Your task to perform on an android device: open a new tab in the chrome app Image 0: 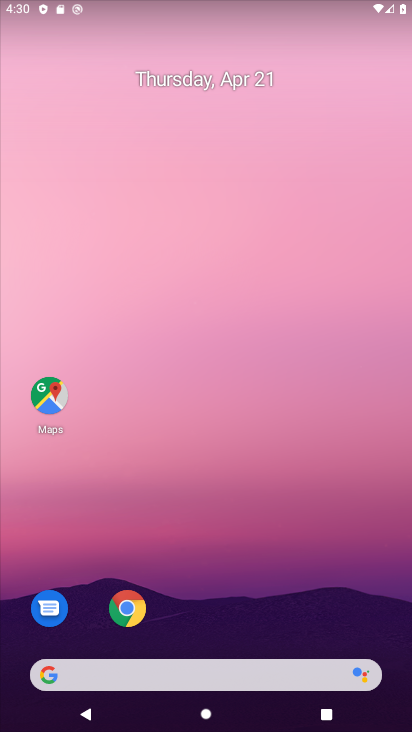
Step 0: drag from (284, 524) to (181, 73)
Your task to perform on an android device: open a new tab in the chrome app Image 1: 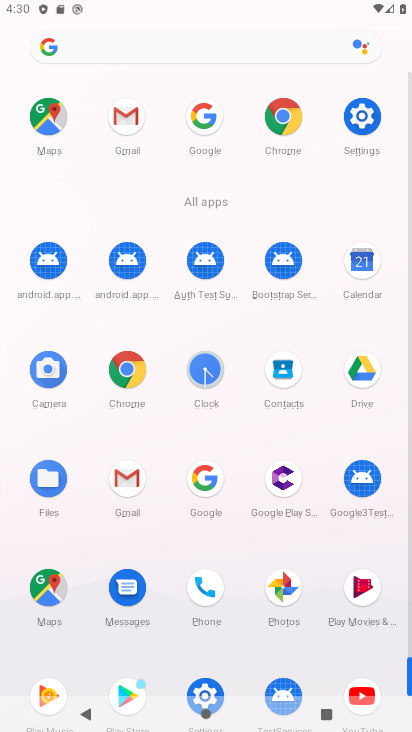
Step 1: click (282, 148)
Your task to perform on an android device: open a new tab in the chrome app Image 2: 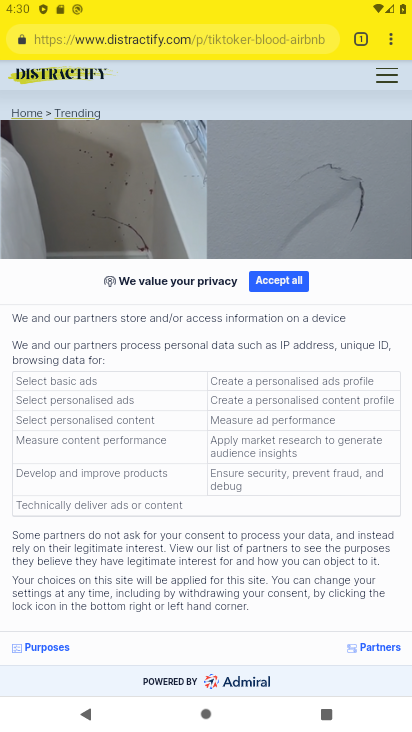
Step 2: click (356, 36)
Your task to perform on an android device: open a new tab in the chrome app Image 3: 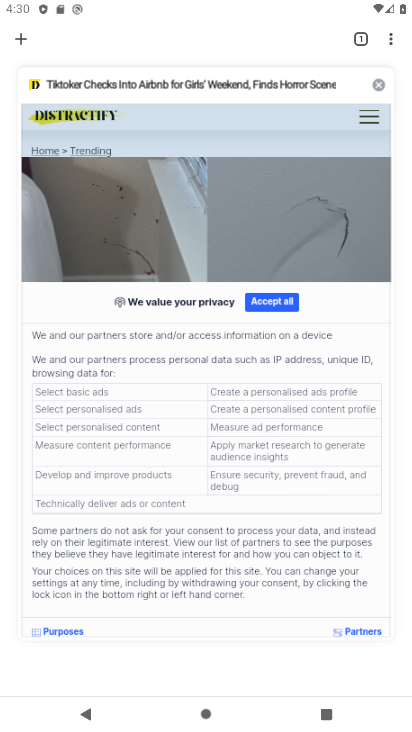
Step 3: click (20, 39)
Your task to perform on an android device: open a new tab in the chrome app Image 4: 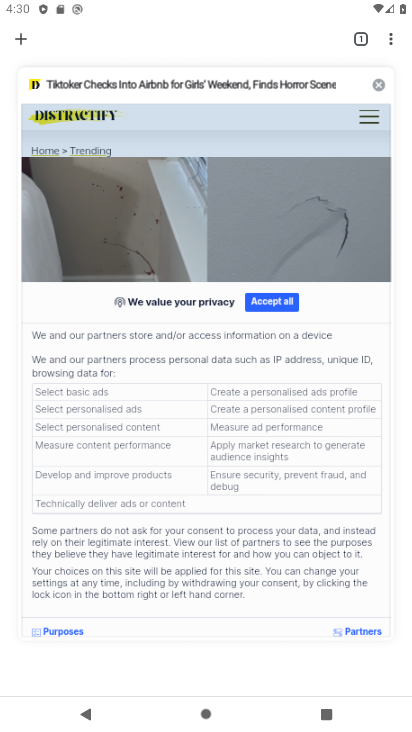
Step 4: click (356, 37)
Your task to perform on an android device: open a new tab in the chrome app Image 5: 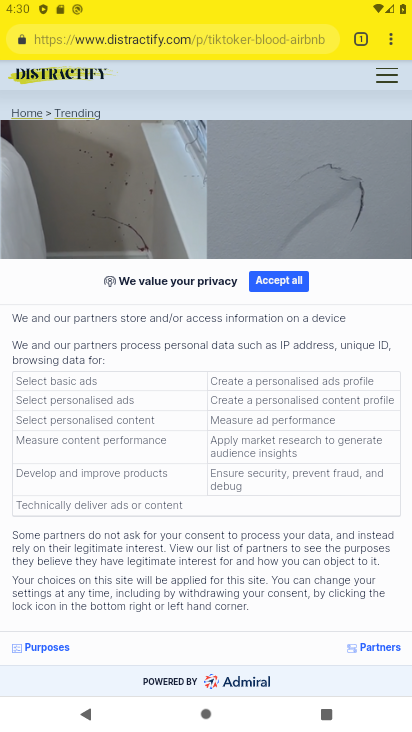
Step 5: click (361, 38)
Your task to perform on an android device: open a new tab in the chrome app Image 6: 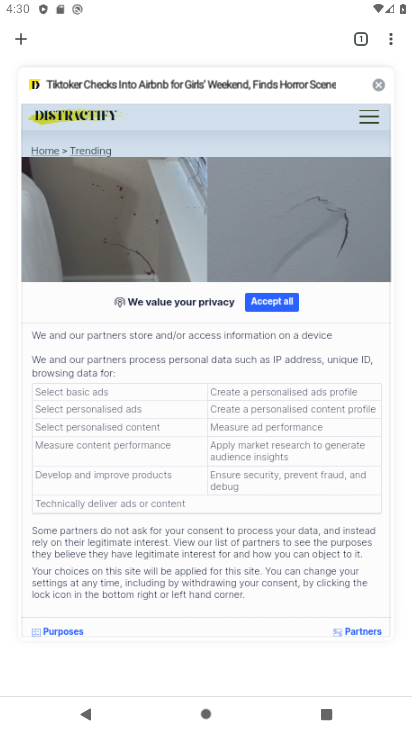
Step 6: click (19, 39)
Your task to perform on an android device: open a new tab in the chrome app Image 7: 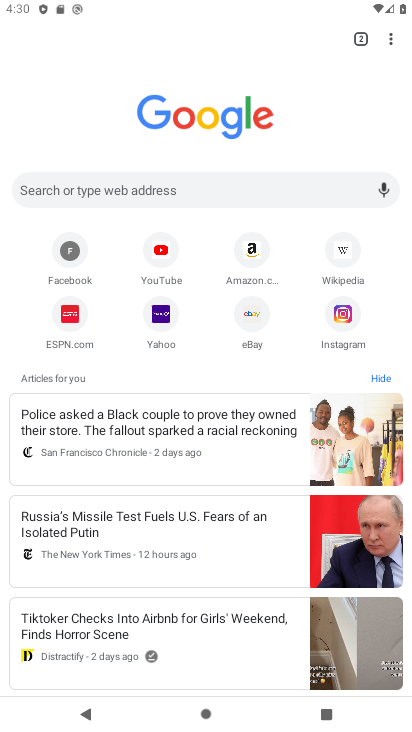
Step 7: task complete